Your task to perform on an android device: open app "Nova Launcher" Image 0: 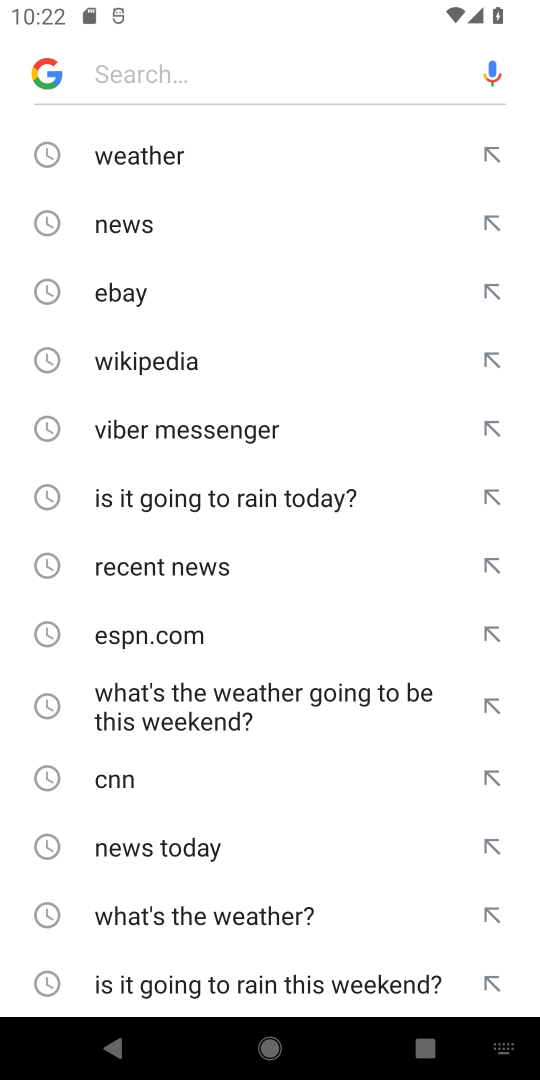
Step 0: press home button
Your task to perform on an android device: open app "Nova Launcher" Image 1: 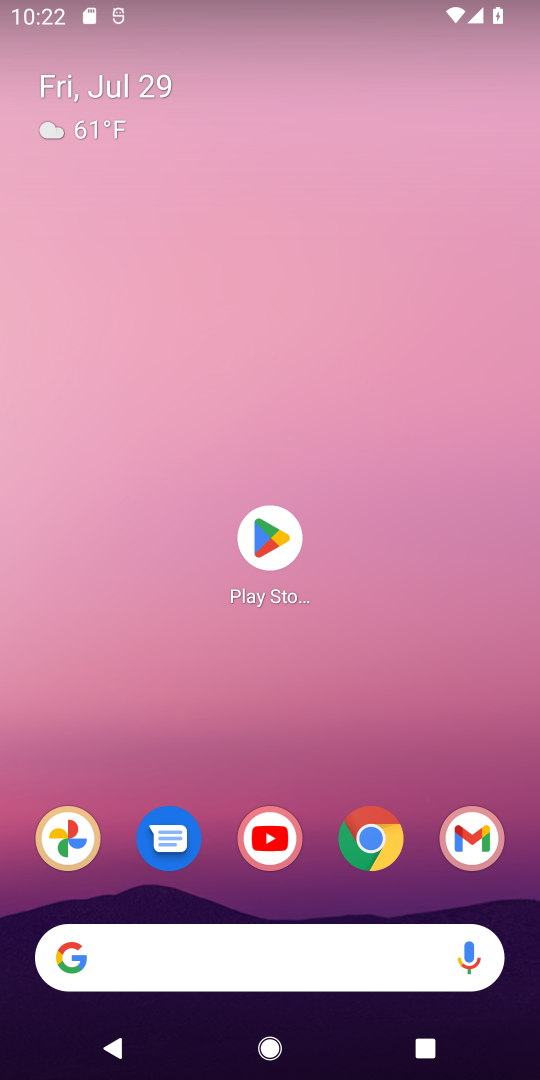
Step 1: click (270, 531)
Your task to perform on an android device: open app "Nova Launcher" Image 2: 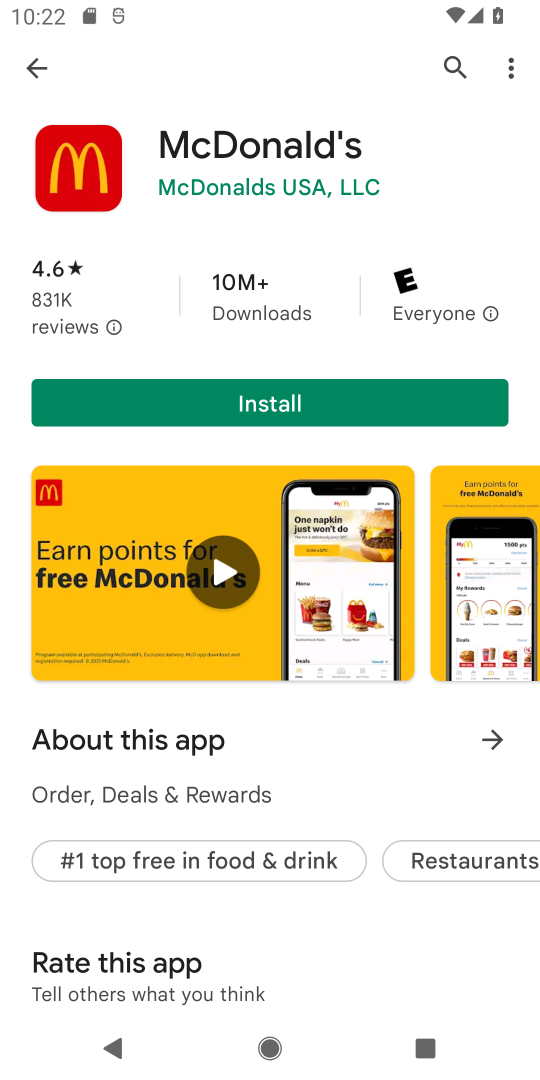
Step 2: click (451, 68)
Your task to perform on an android device: open app "Nova Launcher" Image 3: 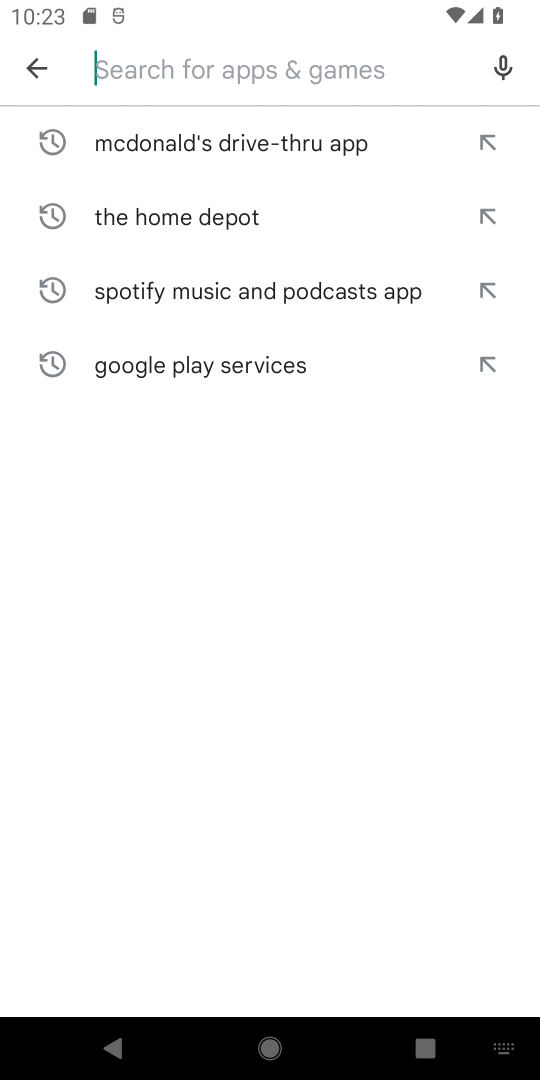
Step 3: type "Nova Launcher"
Your task to perform on an android device: open app "Nova Launcher" Image 4: 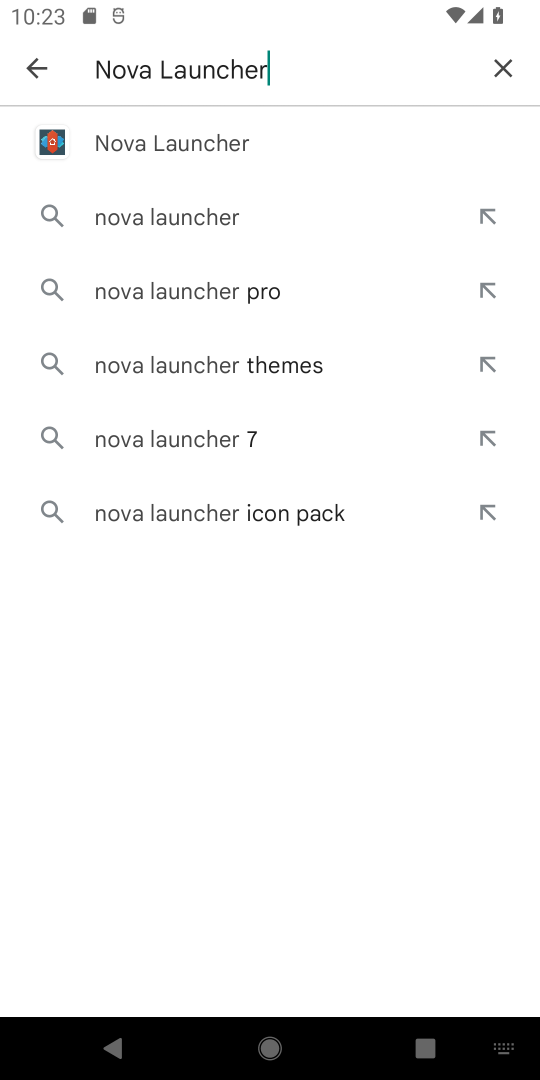
Step 4: click (183, 148)
Your task to perform on an android device: open app "Nova Launcher" Image 5: 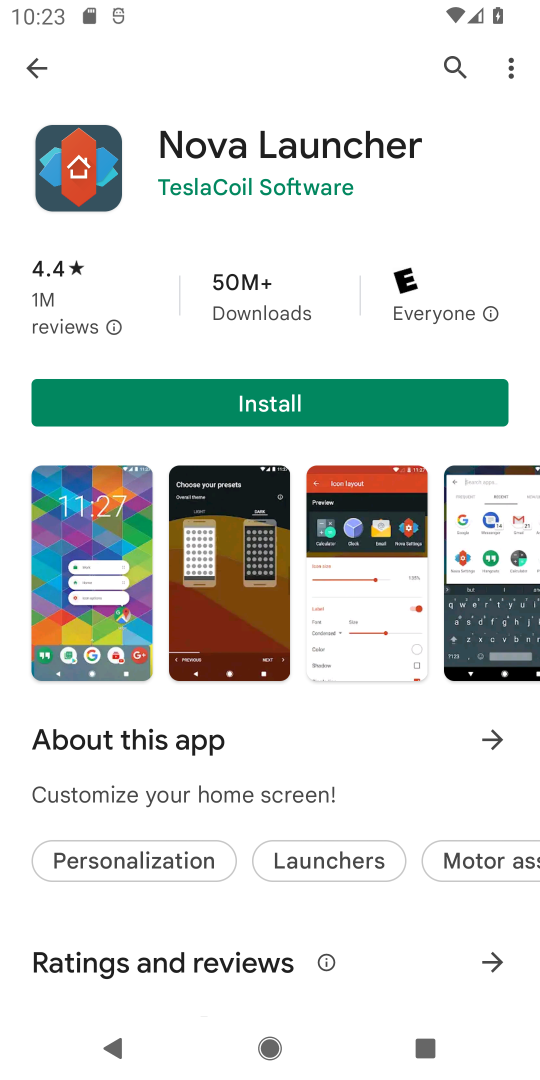
Step 5: task complete